Your task to perform on an android device: Open ESPN.com Image 0: 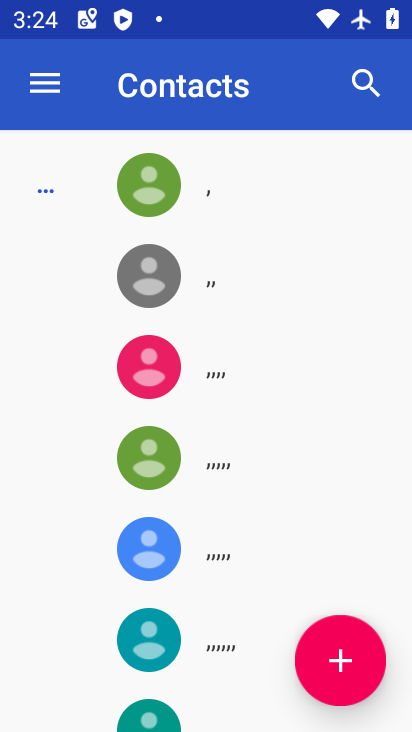
Step 0: press home button
Your task to perform on an android device: Open ESPN.com Image 1: 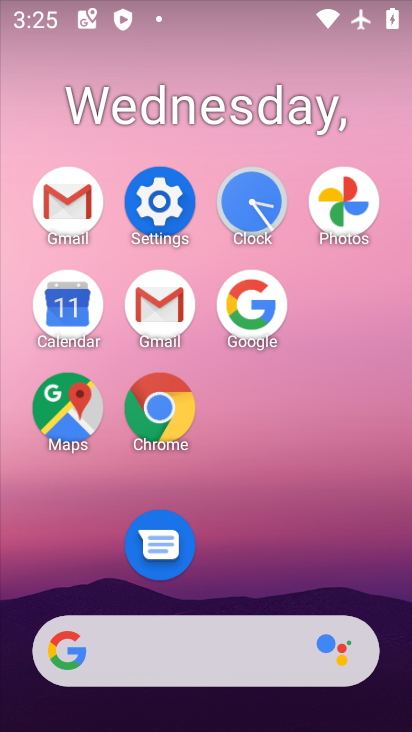
Step 1: click (161, 385)
Your task to perform on an android device: Open ESPN.com Image 2: 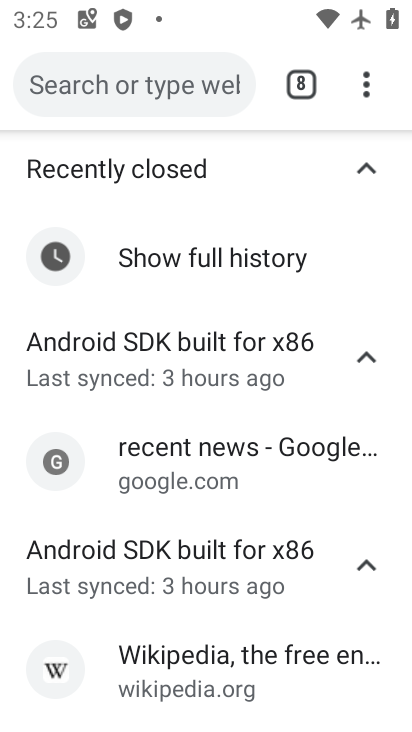
Step 2: click (310, 80)
Your task to perform on an android device: Open ESPN.com Image 3: 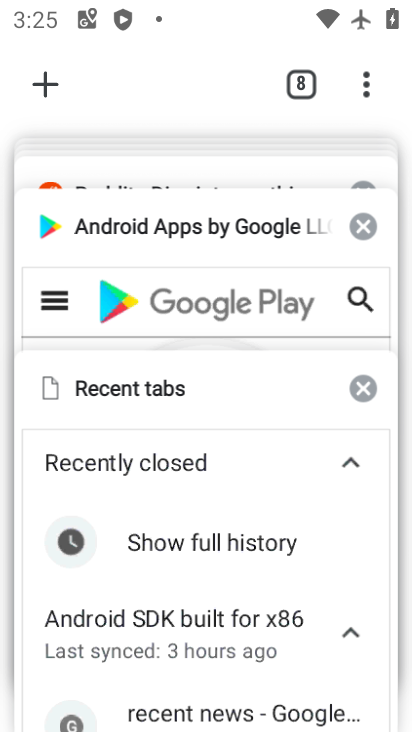
Step 3: click (33, 88)
Your task to perform on an android device: Open ESPN.com Image 4: 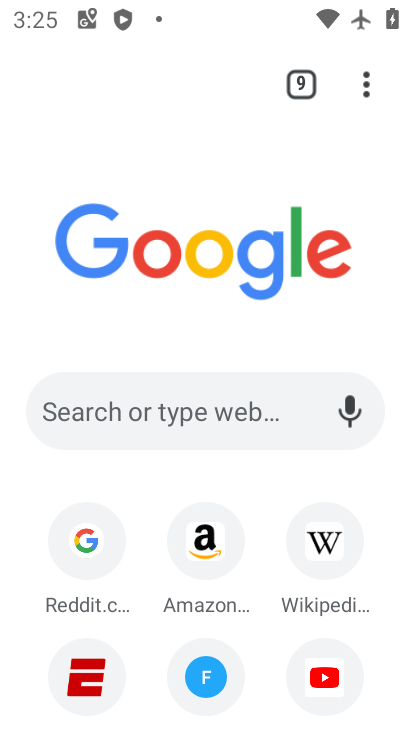
Step 4: click (110, 651)
Your task to perform on an android device: Open ESPN.com Image 5: 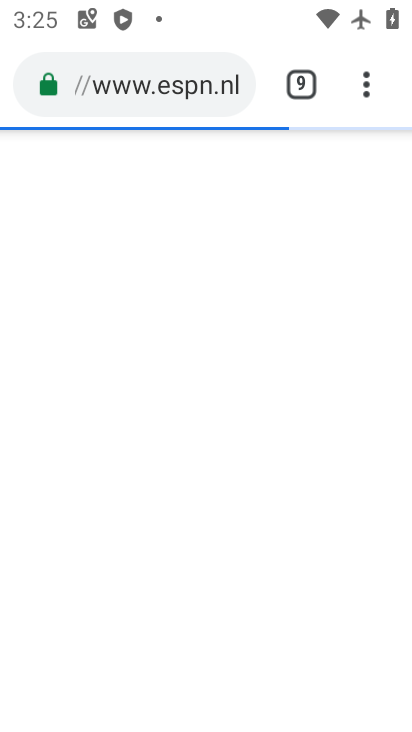
Step 5: task complete